Your task to perform on an android device: turn on sleep mode Image 0: 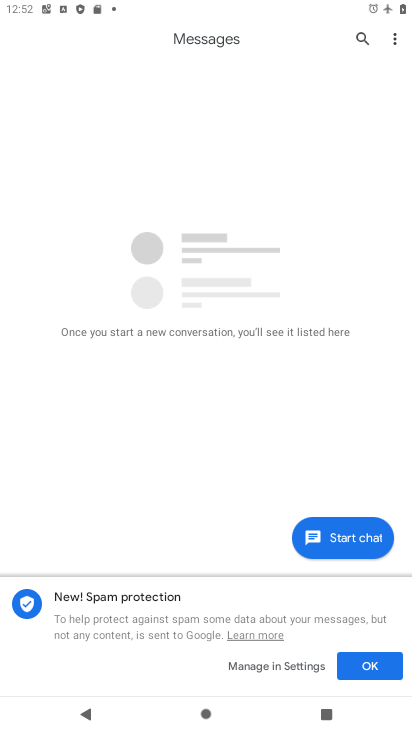
Step 0: press home button
Your task to perform on an android device: turn on sleep mode Image 1: 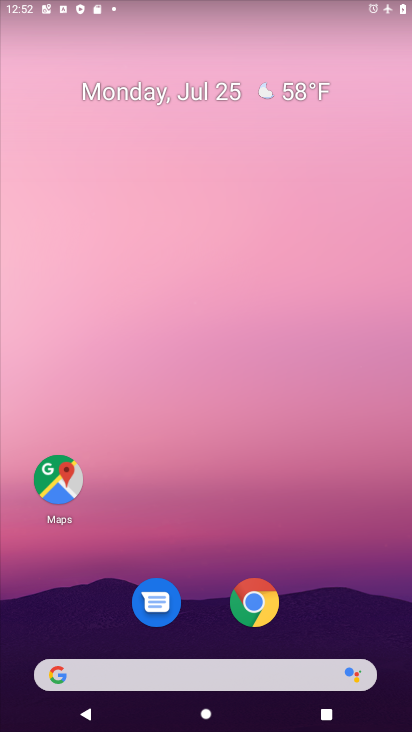
Step 1: drag from (196, 586) to (199, 114)
Your task to perform on an android device: turn on sleep mode Image 2: 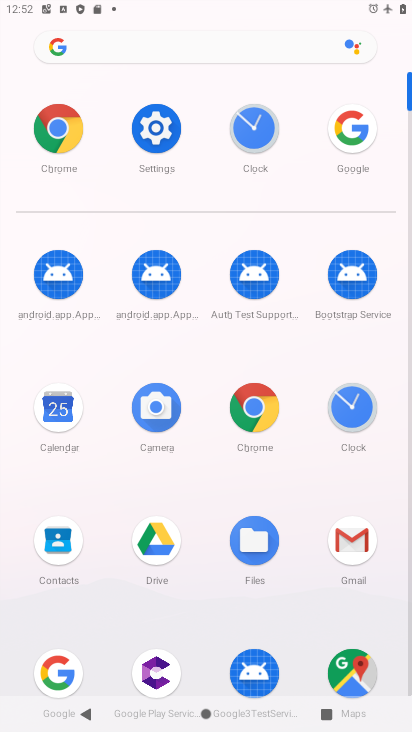
Step 2: click (178, 141)
Your task to perform on an android device: turn on sleep mode Image 3: 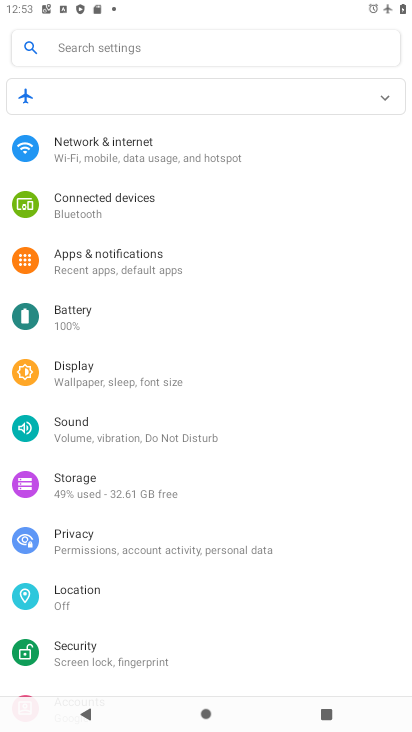
Step 3: click (99, 370)
Your task to perform on an android device: turn on sleep mode Image 4: 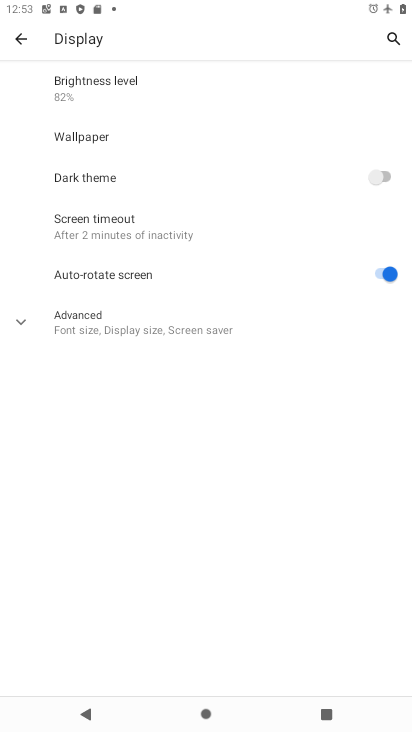
Step 4: click (116, 226)
Your task to perform on an android device: turn on sleep mode Image 5: 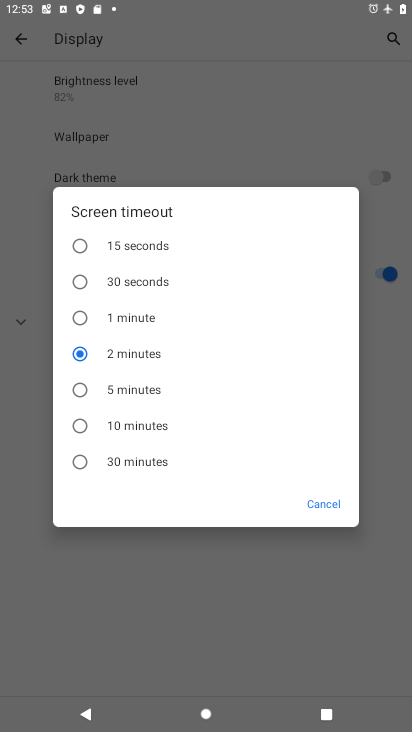
Step 5: click (140, 405)
Your task to perform on an android device: turn on sleep mode Image 6: 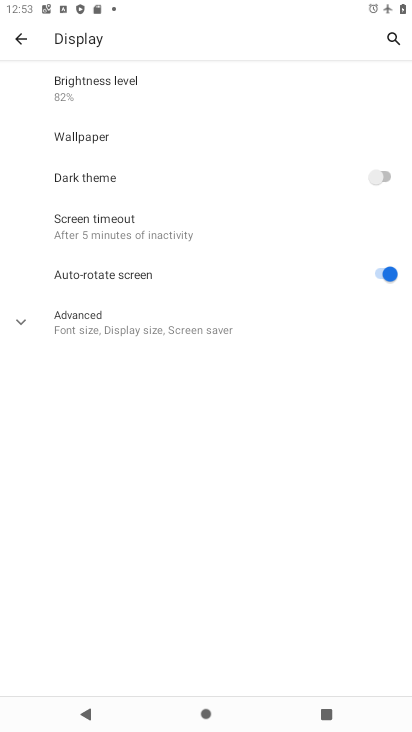
Step 6: task complete